Your task to perform on an android device: turn on data saver in the chrome app Image 0: 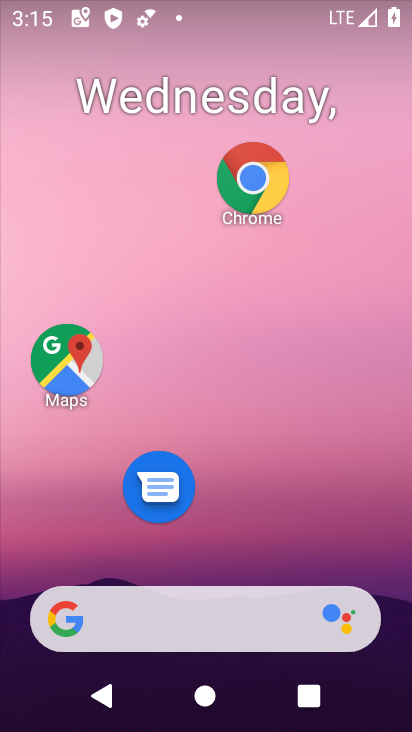
Step 0: click (248, 173)
Your task to perform on an android device: turn on data saver in the chrome app Image 1: 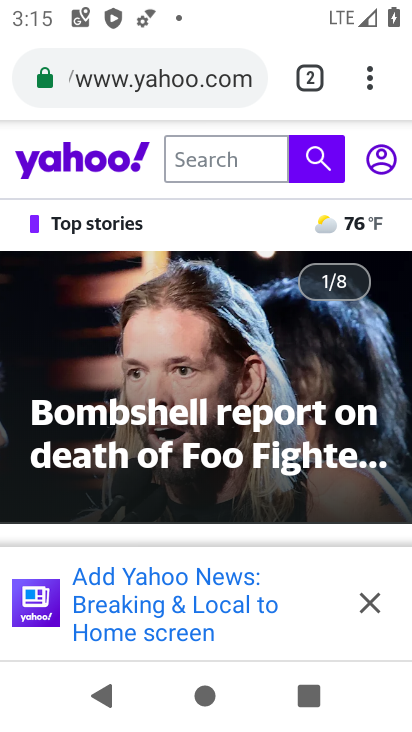
Step 1: click (365, 88)
Your task to perform on an android device: turn on data saver in the chrome app Image 2: 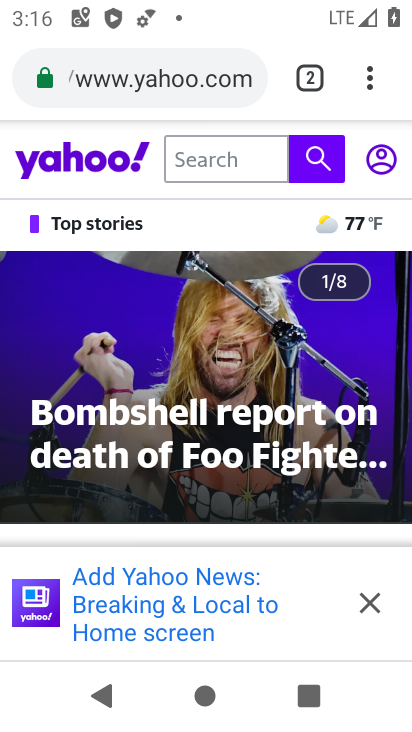
Step 2: click (365, 88)
Your task to perform on an android device: turn on data saver in the chrome app Image 3: 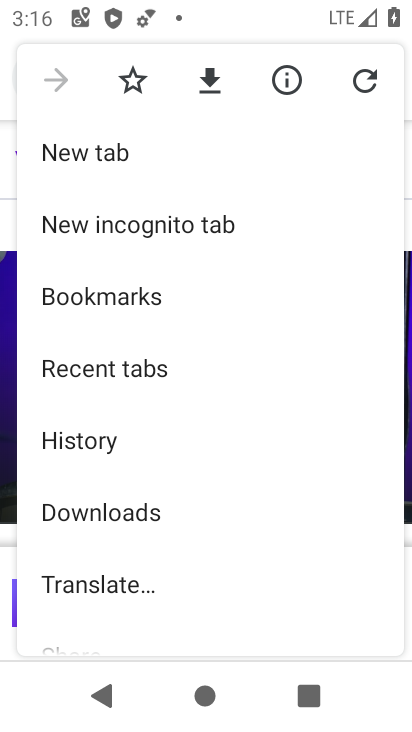
Step 3: drag from (136, 597) to (209, 387)
Your task to perform on an android device: turn on data saver in the chrome app Image 4: 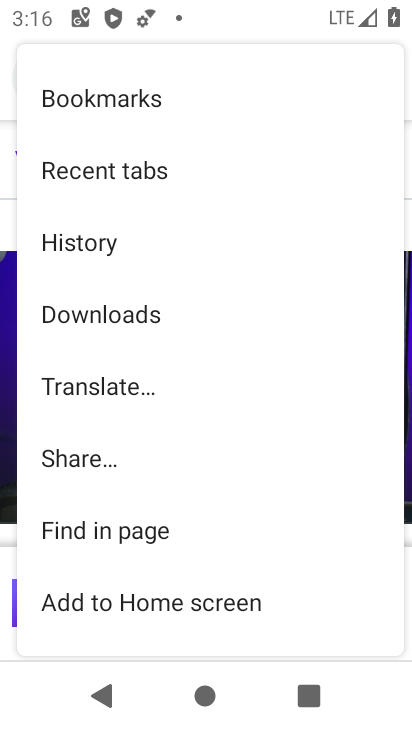
Step 4: drag from (183, 609) to (246, 441)
Your task to perform on an android device: turn on data saver in the chrome app Image 5: 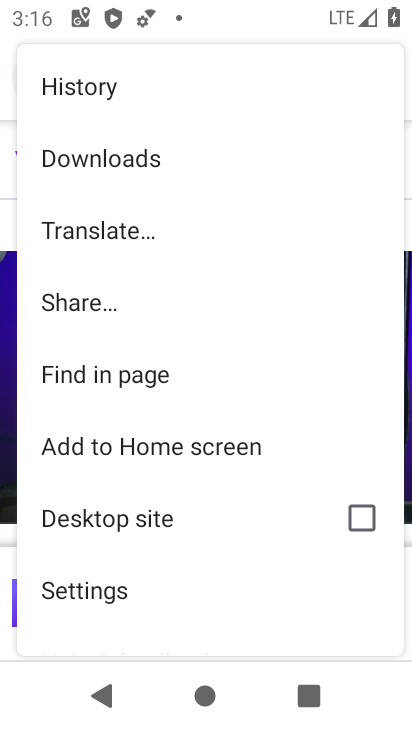
Step 5: click (179, 590)
Your task to perform on an android device: turn on data saver in the chrome app Image 6: 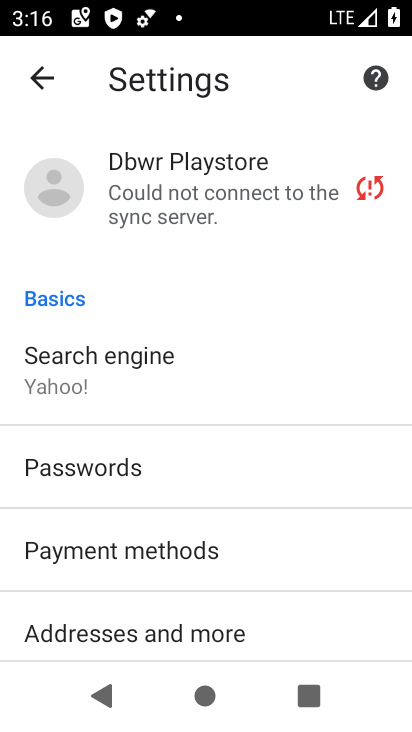
Step 6: drag from (220, 617) to (297, 237)
Your task to perform on an android device: turn on data saver in the chrome app Image 7: 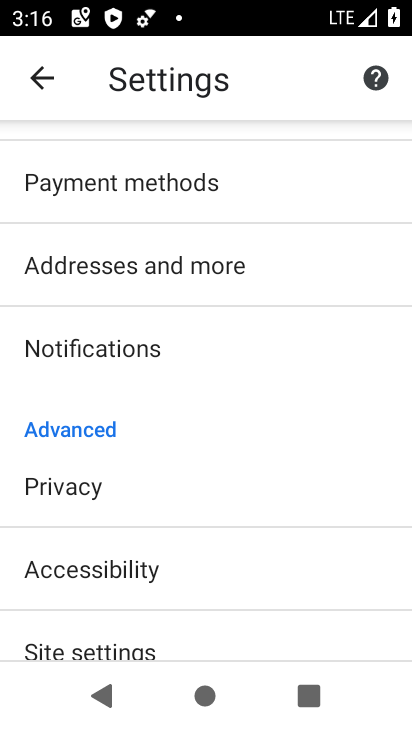
Step 7: drag from (207, 582) to (248, 209)
Your task to perform on an android device: turn on data saver in the chrome app Image 8: 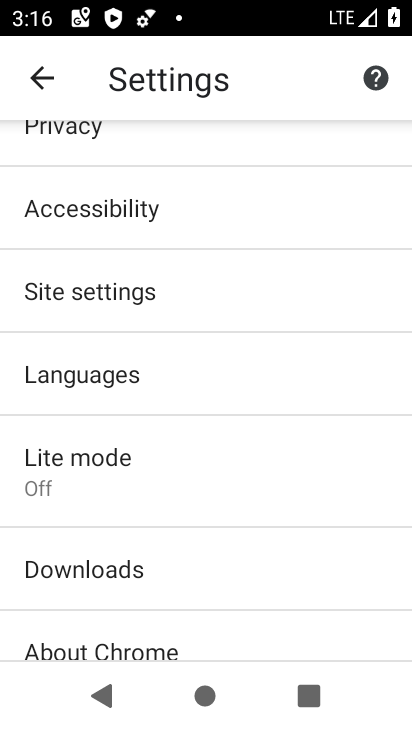
Step 8: click (141, 493)
Your task to perform on an android device: turn on data saver in the chrome app Image 9: 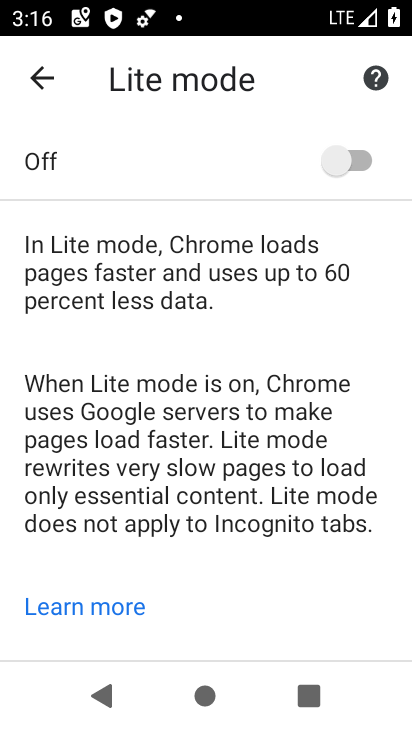
Step 9: click (370, 158)
Your task to perform on an android device: turn on data saver in the chrome app Image 10: 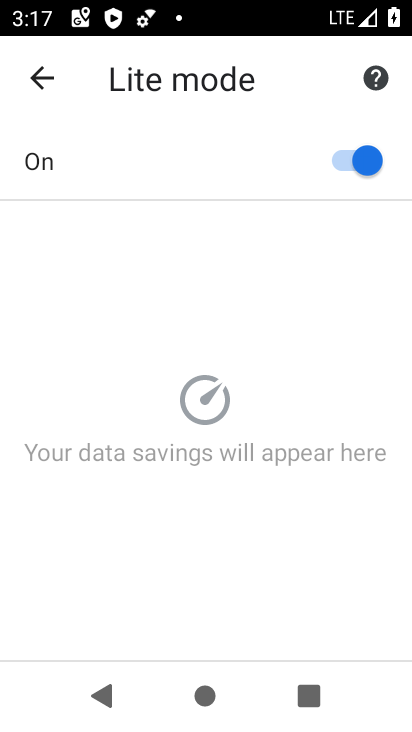
Step 10: task complete